Your task to perform on an android device: Go to calendar. Show me events next week Image 0: 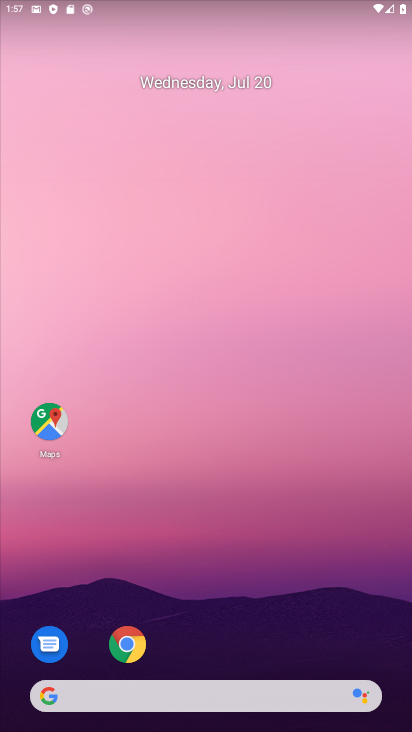
Step 0: drag from (252, 622) to (289, 197)
Your task to perform on an android device: Go to calendar. Show me events next week Image 1: 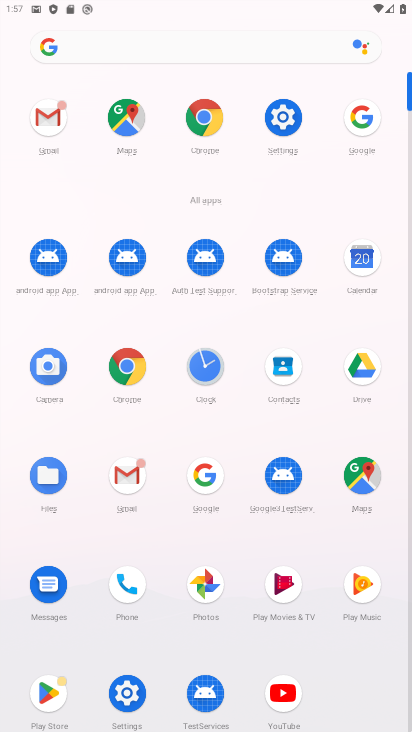
Step 1: click (365, 240)
Your task to perform on an android device: Go to calendar. Show me events next week Image 2: 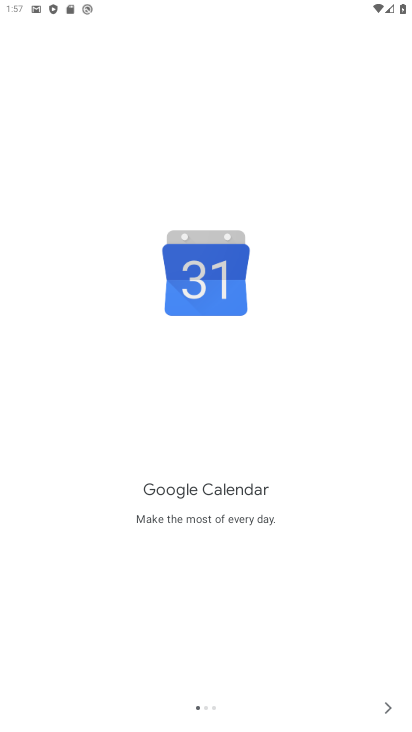
Step 2: click (386, 703)
Your task to perform on an android device: Go to calendar. Show me events next week Image 3: 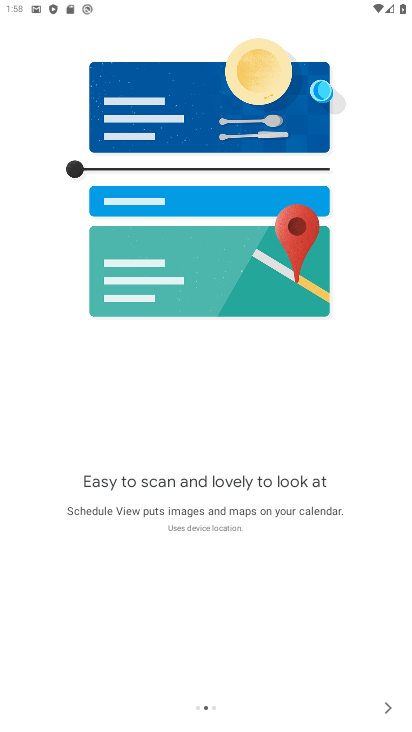
Step 3: click (386, 703)
Your task to perform on an android device: Go to calendar. Show me events next week Image 4: 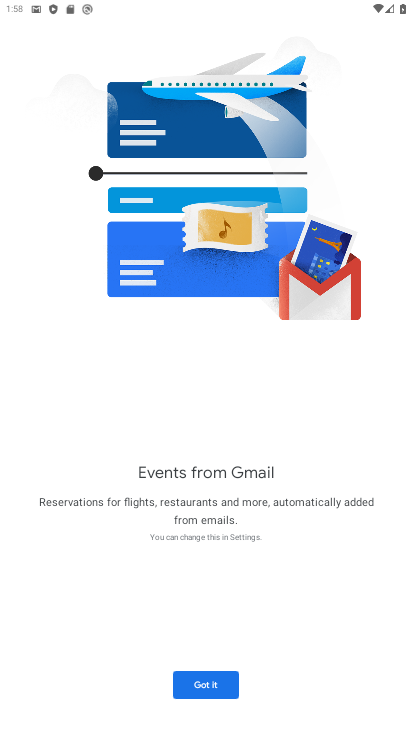
Step 4: click (194, 682)
Your task to perform on an android device: Go to calendar. Show me events next week Image 5: 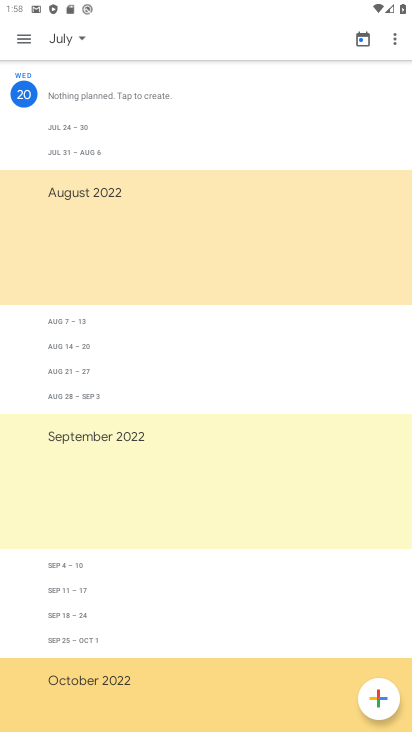
Step 5: click (51, 47)
Your task to perform on an android device: Go to calendar. Show me events next week Image 6: 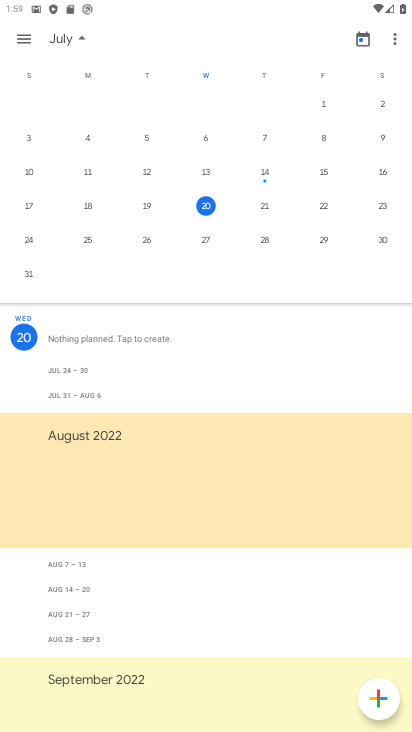
Step 6: click (77, 42)
Your task to perform on an android device: Go to calendar. Show me events next week Image 7: 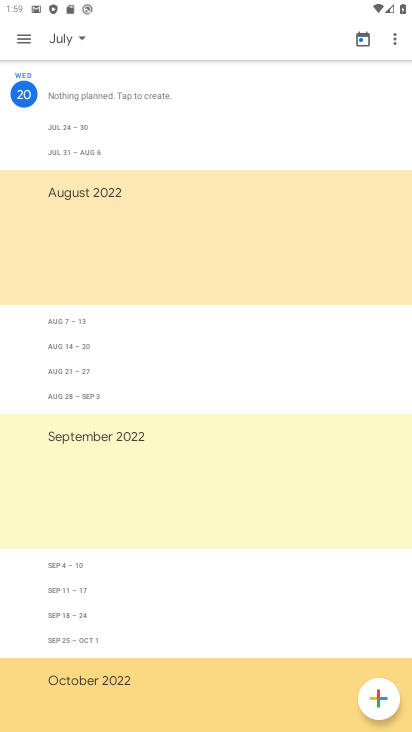
Step 7: click (76, 38)
Your task to perform on an android device: Go to calendar. Show me events next week Image 8: 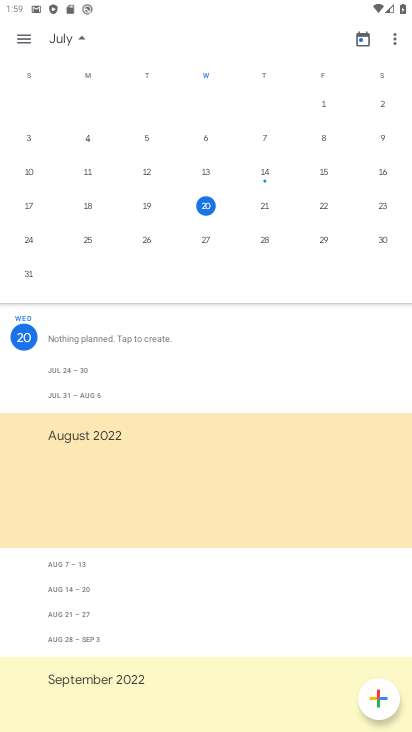
Step 8: click (202, 232)
Your task to perform on an android device: Go to calendar. Show me events next week Image 9: 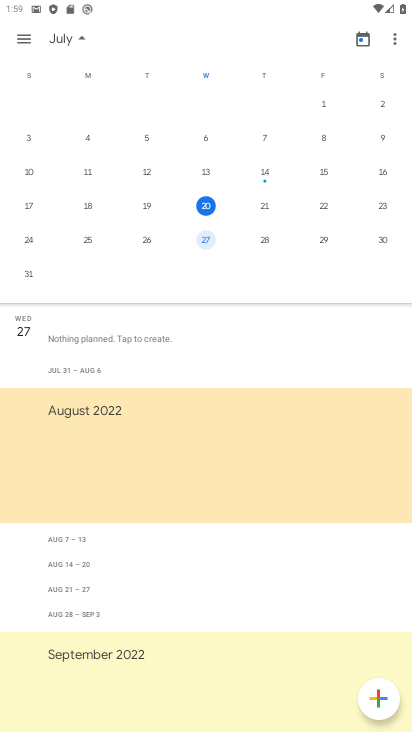
Step 9: task complete